Your task to perform on an android device: Search for sushi restaurants on Maps Image 0: 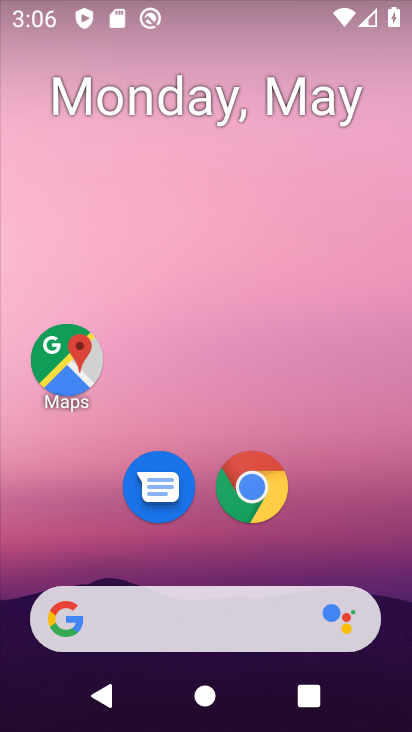
Step 0: drag from (268, 330) to (315, 124)
Your task to perform on an android device: Search for sushi restaurants on Maps Image 1: 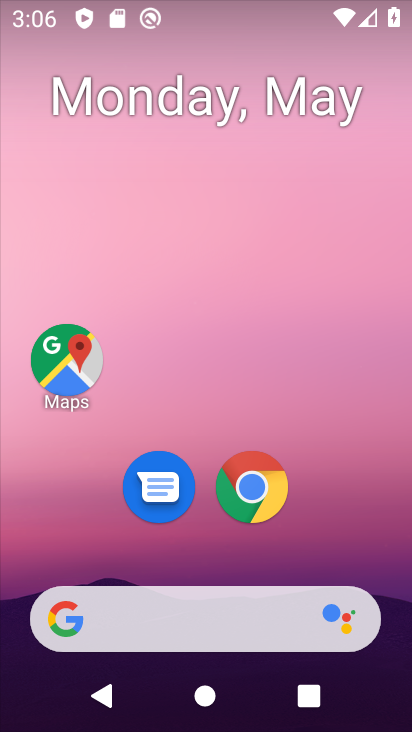
Step 1: click (278, 139)
Your task to perform on an android device: Search for sushi restaurants on Maps Image 2: 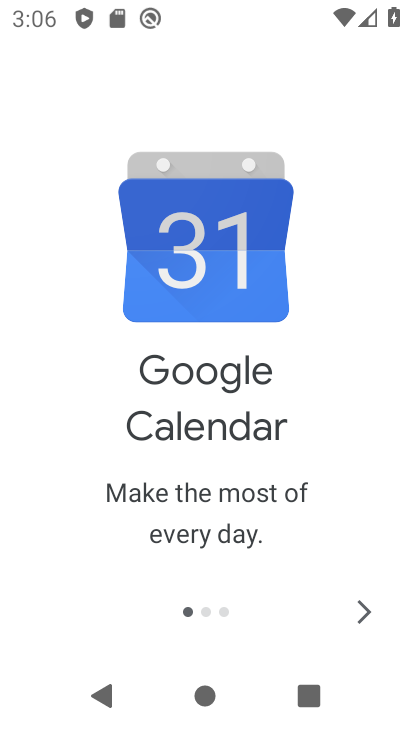
Step 2: press home button
Your task to perform on an android device: Search for sushi restaurants on Maps Image 3: 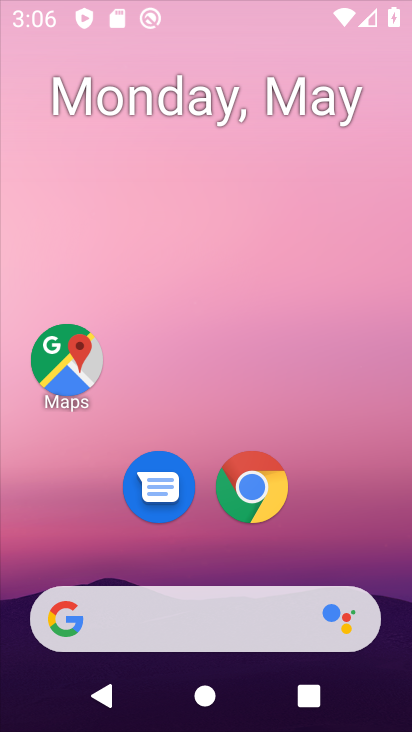
Step 3: drag from (237, 514) to (309, 134)
Your task to perform on an android device: Search for sushi restaurants on Maps Image 4: 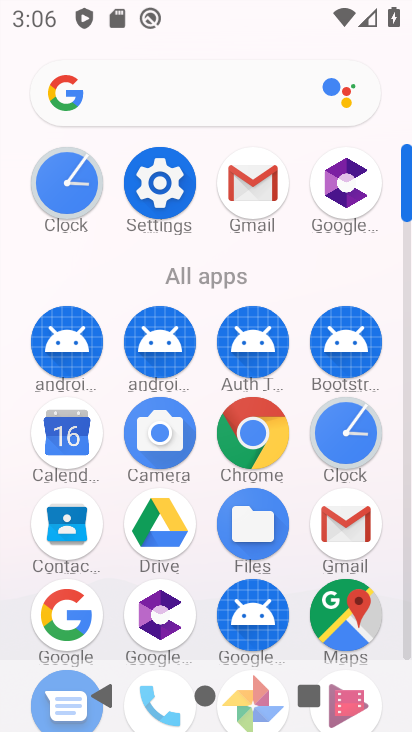
Step 4: click (353, 615)
Your task to perform on an android device: Search for sushi restaurants on Maps Image 5: 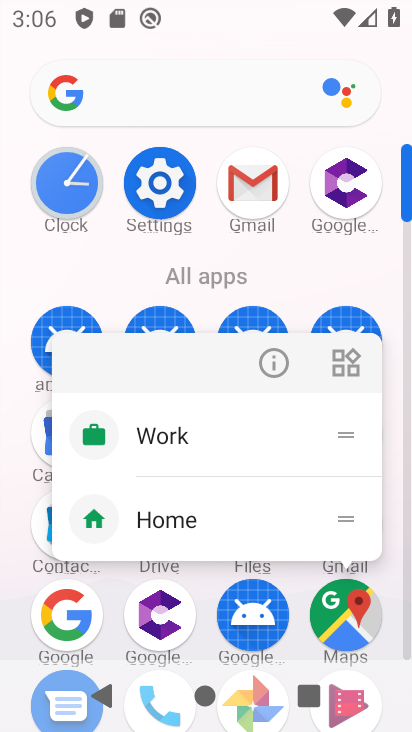
Step 5: click (275, 362)
Your task to perform on an android device: Search for sushi restaurants on Maps Image 6: 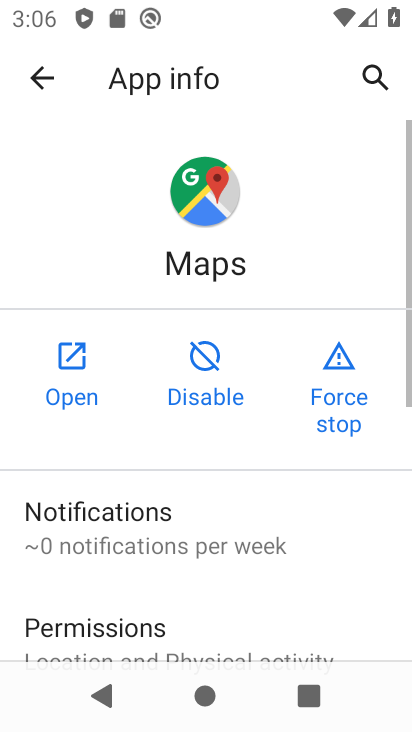
Step 6: click (64, 354)
Your task to perform on an android device: Search for sushi restaurants on Maps Image 7: 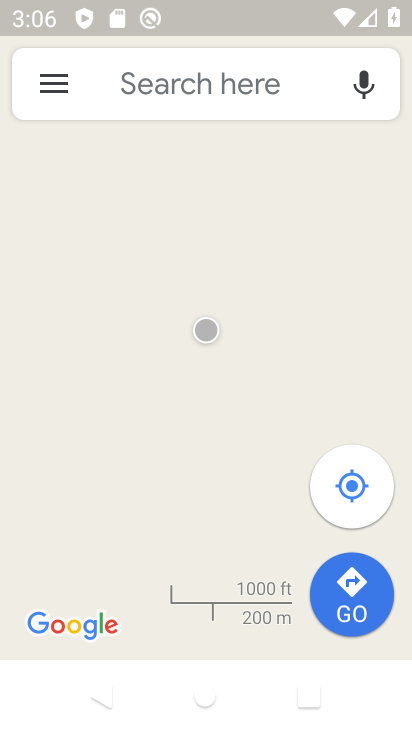
Step 7: click (154, 109)
Your task to perform on an android device: Search for sushi restaurants on Maps Image 8: 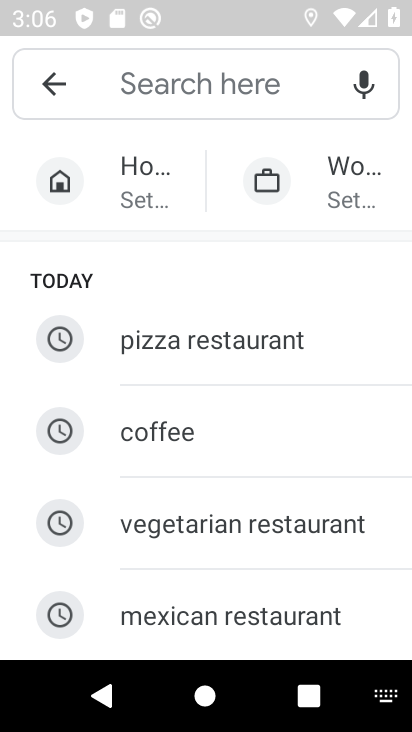
Step 8: drag from (218, 588) to (240, 229)
Your task to perform on an android device: Search for sushi restaurants on Maps Image 9: 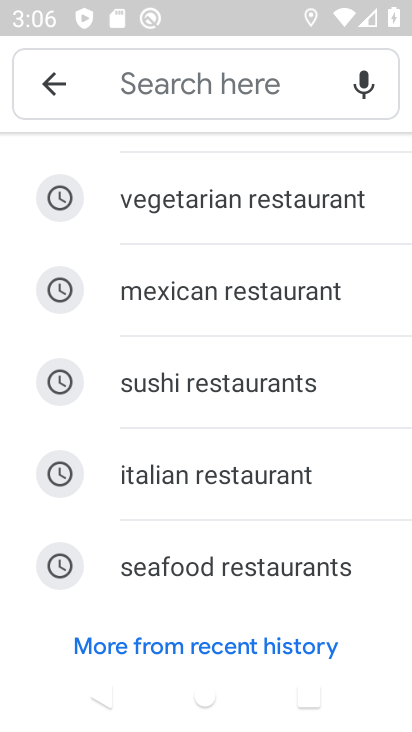
Step 9: click (195, 382)
Your task to perform on an android device: Search for sushi restaurants on Maps Image 10: 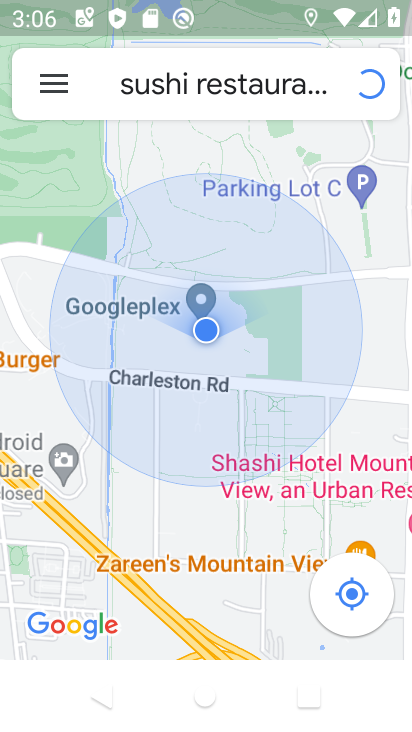
Step 10: task complete